Your task to perform on an android device: toggle improve location accuracy Image 0: 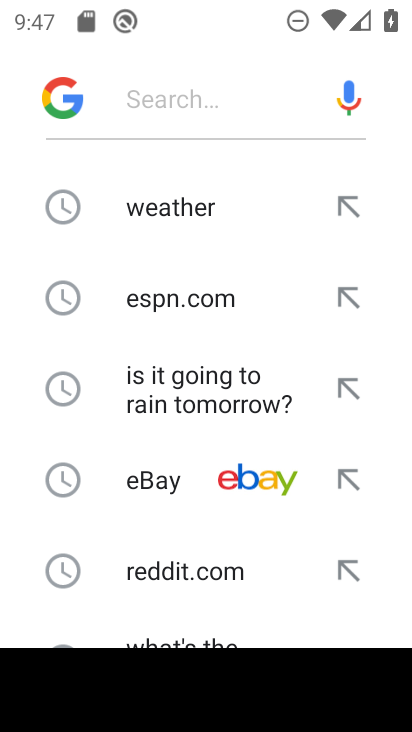
Step 0: press home button
Your task to perform on an android device: toggle improve location accuracy Image 1: 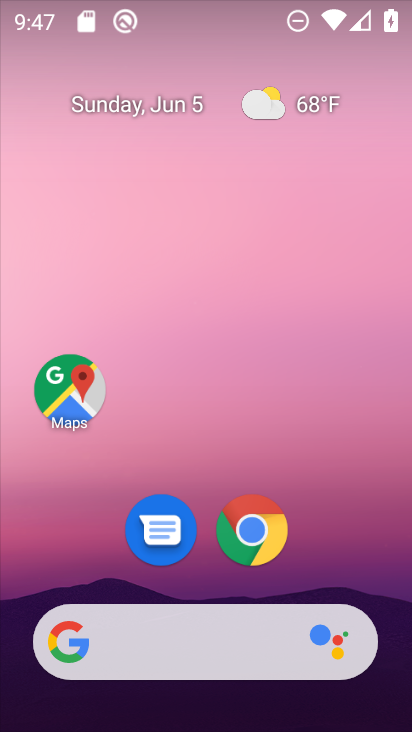
Step 1: drag from (396, 630) to (334, 137)
Your task to perform on an android device: toggle improve location accuracy Image 2: 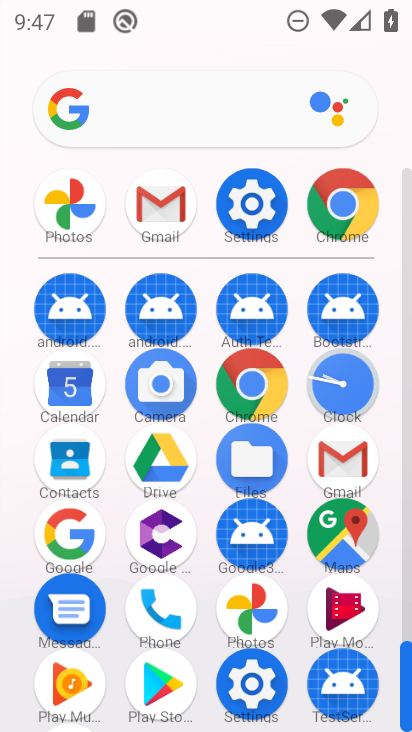
Step 2: click (250, 683)
Your task to perform on an android device: toggle improve location accuracy Image 3: 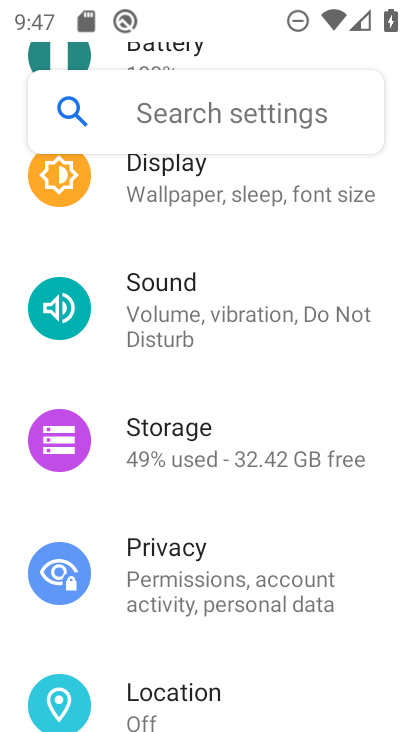
Step 3: drag from (332, 627) to (322, 257)
Your task to perform on an android device: toggle improve location accuracy Image 4: 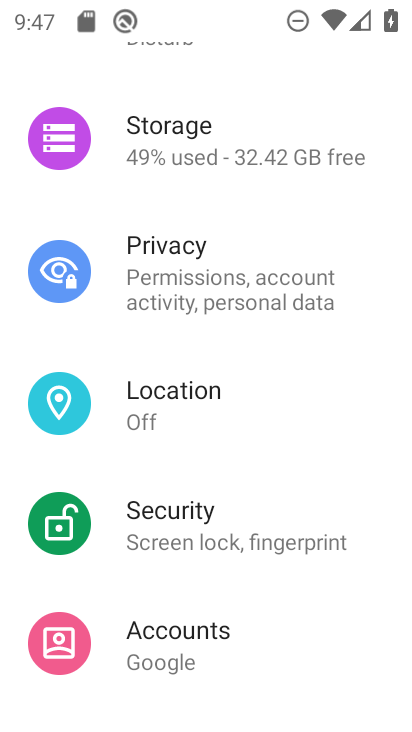
Step 4: click (174, 395)
Your task to perform on an android device: toggle improve location accuracy Image 5: 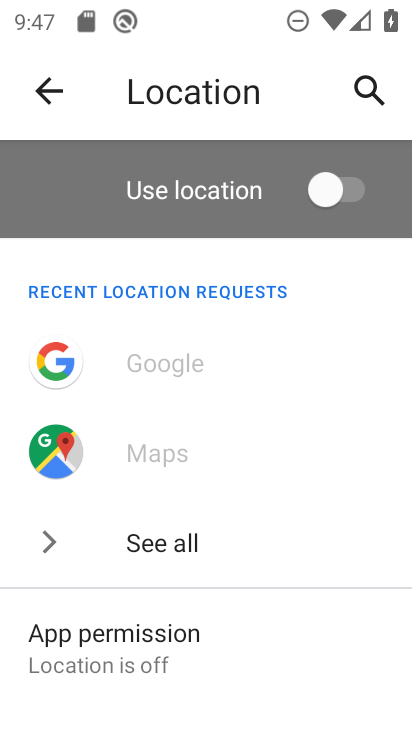
Step 5: drag from (289, 683) to (214, 224)
Your task to perform on an android device: toggle improve location accuracy Image 6: 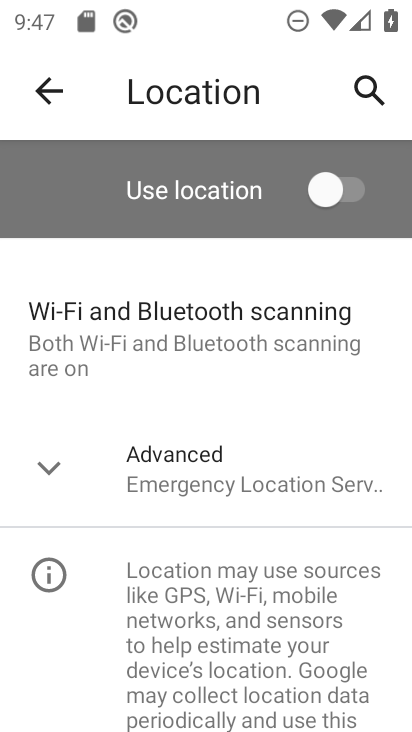
Step 6: click (54, 465)
Your task to perform on an android device: toggle improve location accuracy Image 7: 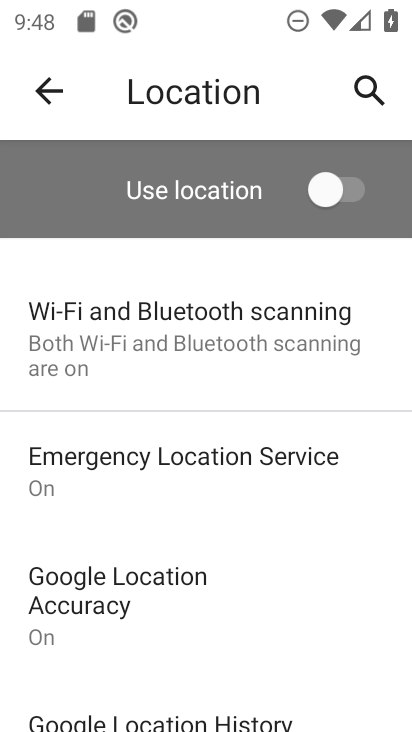
Step 7: click (119, 621)
Your task to perform on an android device: toggle improve location accuracy Image 8: 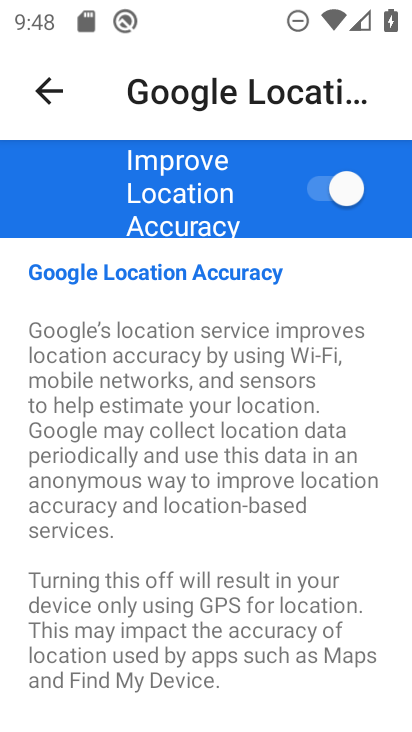
Step 8: click (313, 183)
Your task to perform on an android device: toggle improve location accuracy Image 9: 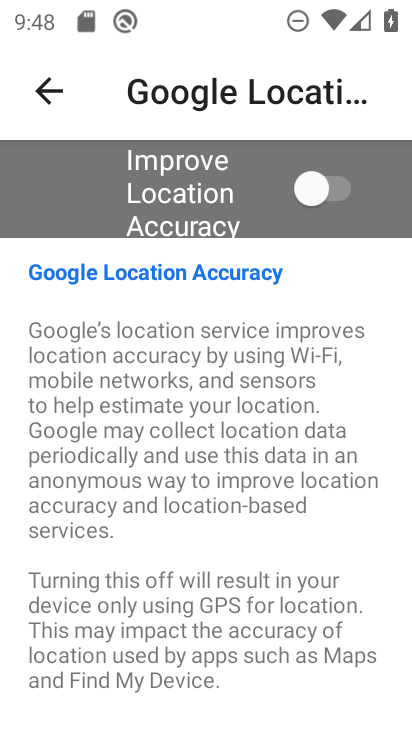
Step 9: task complete